Your task to perform on an android device: Do I have any events today? Image 0: 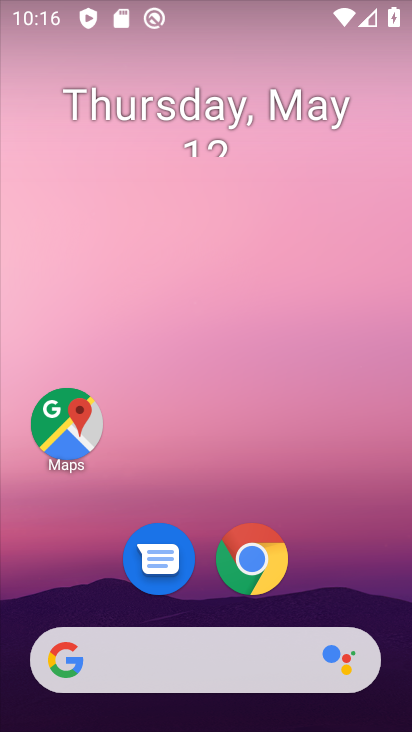
Step 0: drag from (207, 531) to (175, 136)
Your task to perform on an android device: Do I have any events today? Image 1: 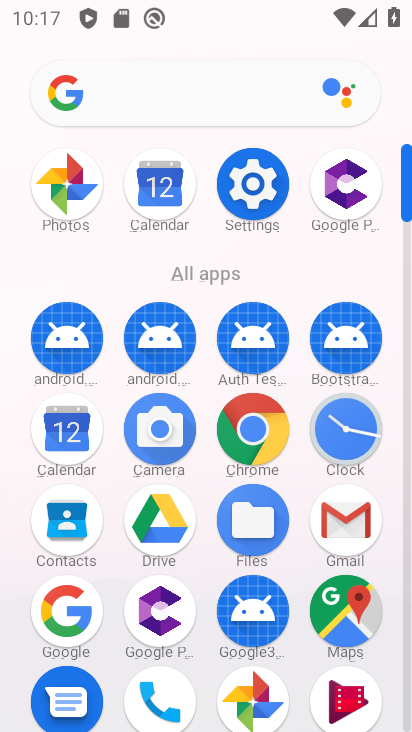
Step 1: click (80, 454)
Your task to perform on an android device: Do I have any events today? Image 2: 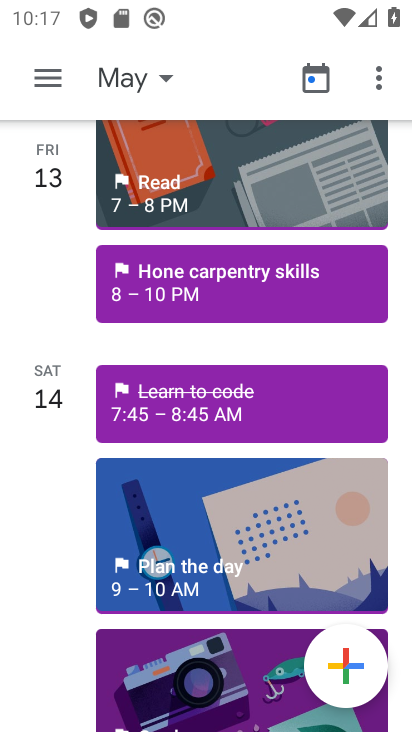
Step 2: drag from (281, 500) to (244, 411)
Your task to perform on an android device: Do I have any events today? Image 3: 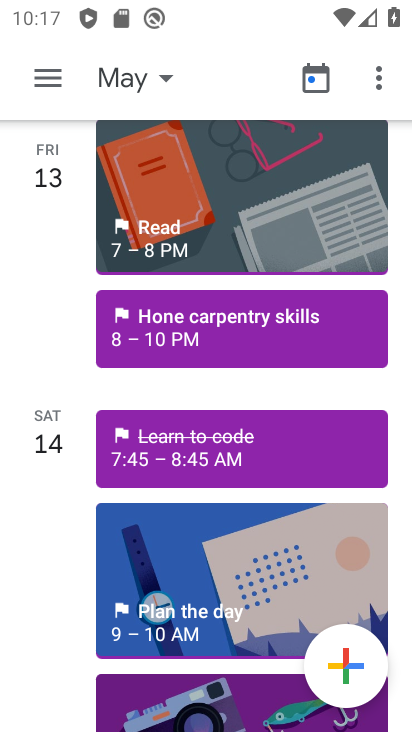
Step 3: click (163, 67)
Your task to perform on an android device: Do I have any events today? Image 4: 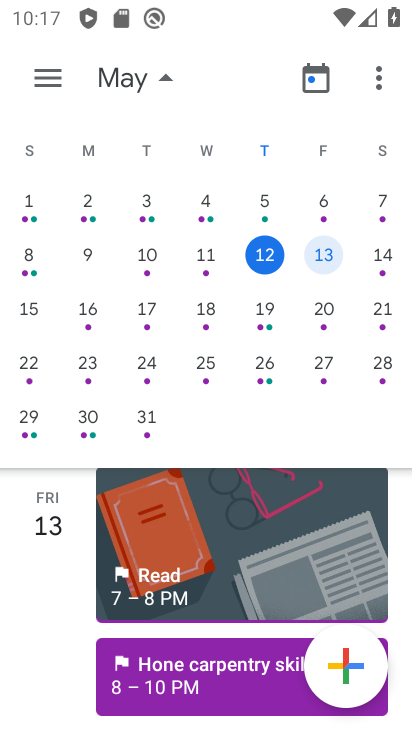
Step 4: click (259, 251)
Your task to perform on an android device: Do I have any events today? Image 5: 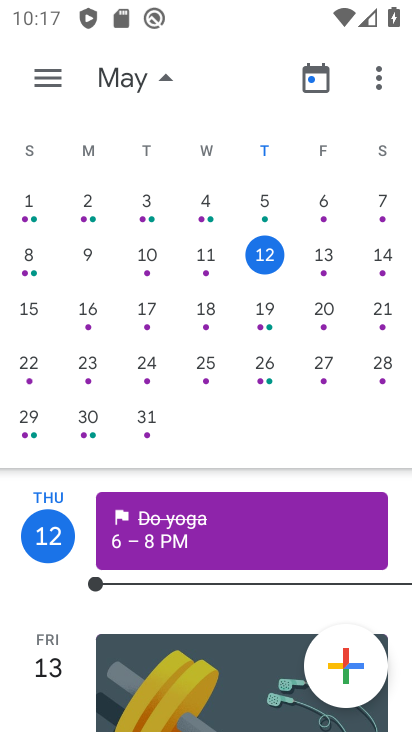
Step 5: task complete